Your task to perform on an android device: open device folders in google photos Image 0: 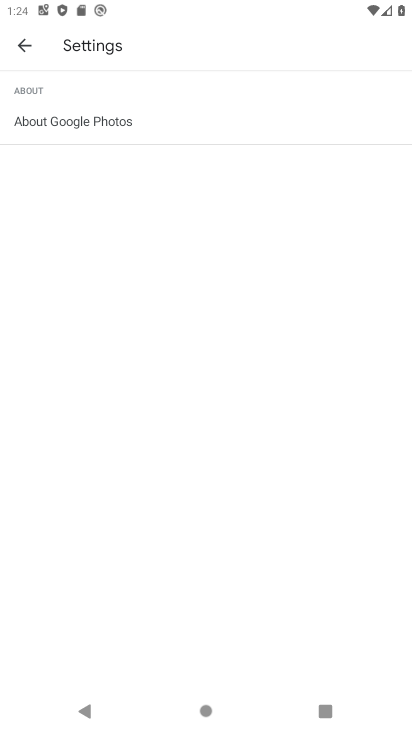
Step 0: drag from (195, 576) to (176, 543)
Your task to perform on an android device: open device folders in google photos Image 1: 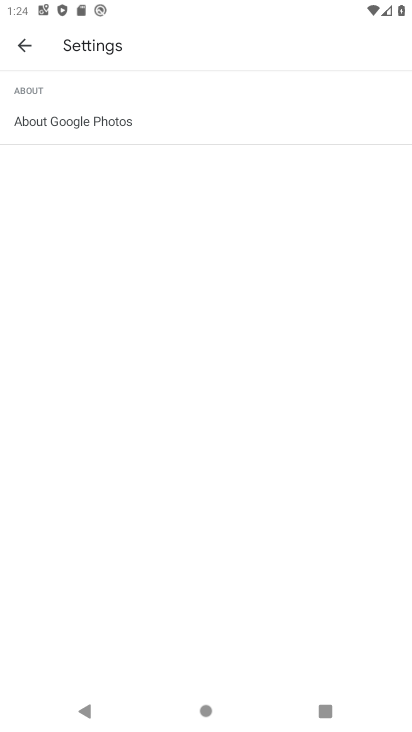
Step 1: click (18, 41)
Your task to perform on an android device: open device folders in google photos Image 2: 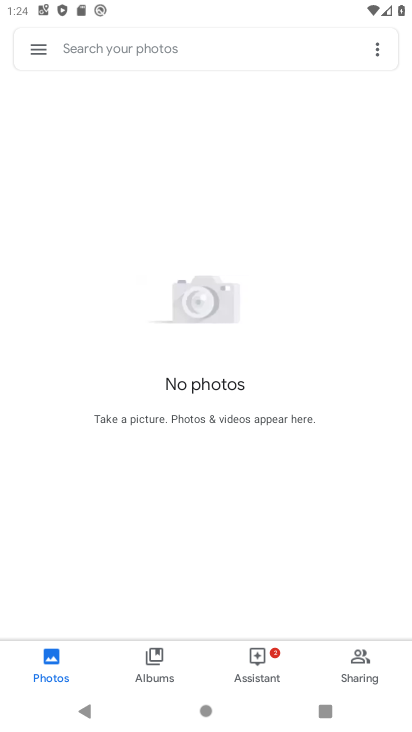
Step 2: click (44, 60)
Your task to perform on an android device: open device folders in google photos Image 3: 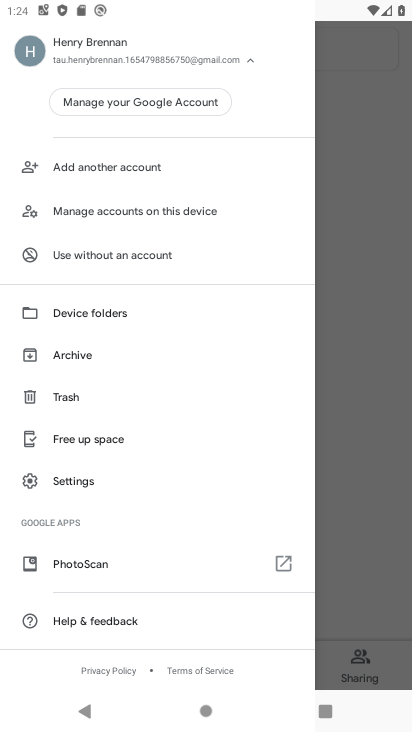
Step 3: click (64, 310)
Your task to perform on an android device: open device folders in google photos Image 4: 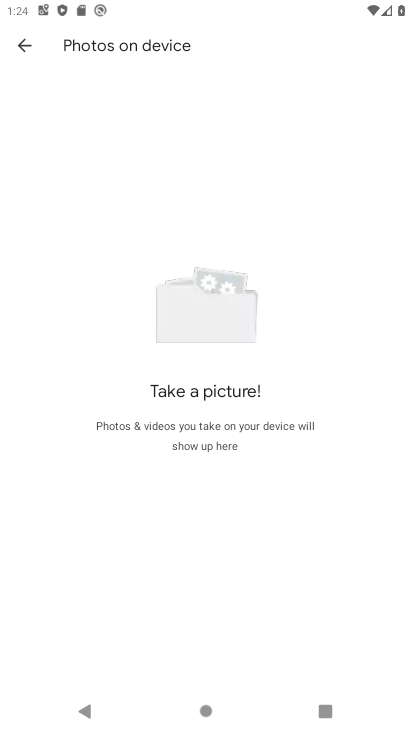
Step 4: task complete